Your task to perform on an android device: Go to Yahoo.com Image 0: 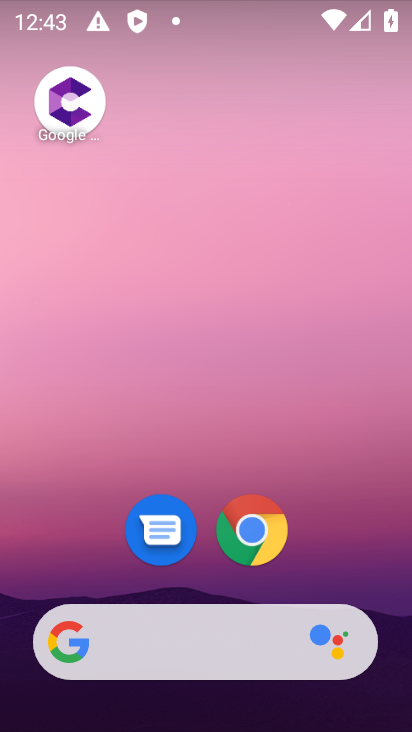
Step 0: click (255, 528)
Your task to perform on an android device: Go to Yahoo.com Image 1: 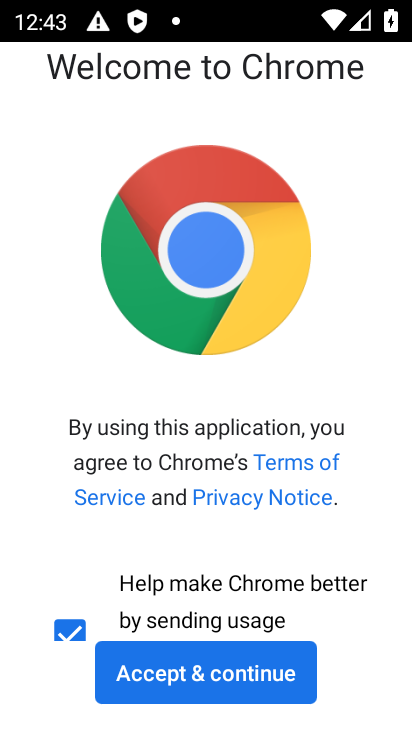
Step 1: click (233, 678)
Your task to perform on an android device: Go to Yahoo.com Image 2: 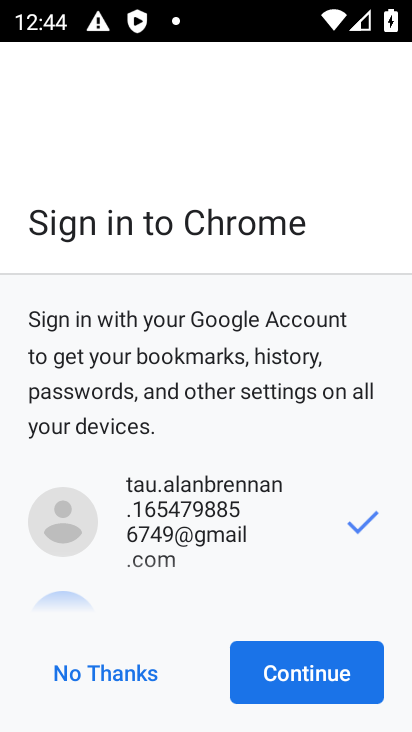
Step 2: click (300, 684)
Your task to perform on an android device: Go to Yahoo.com Image 3: 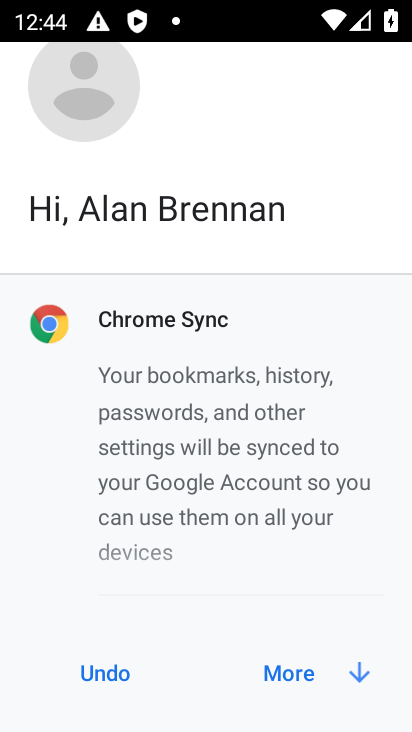
Step 3: click (298, 668)
Your task to perform on an android device: Go to Yahoo.com Image 4: 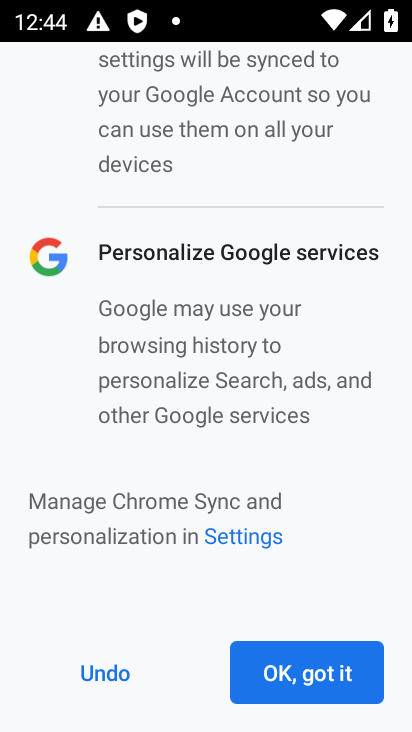
Step 4: click (298, 668)
Your task to perform on an android device: Go to Yahoo.com Image 5: 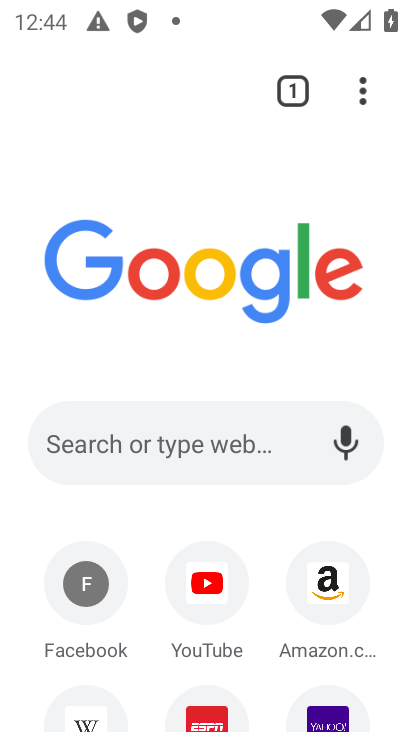
Step 5: click (313, 703)
Your task to perform on an android device: Go to Yahoo.com Image 6: 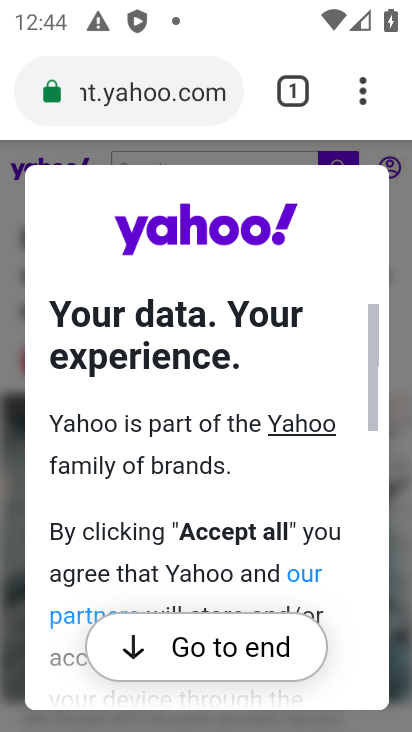
Step 6: click (207, 641)
Your task to perform on an android device: Go to Yahoo.com Image 7: 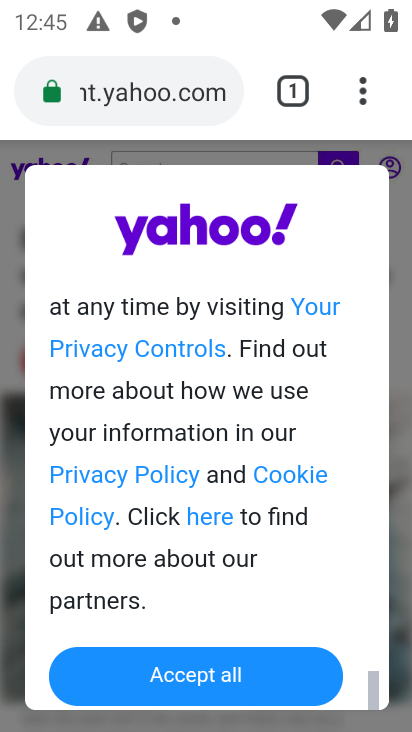
Step 7: click (225, 676)
Your task to perform on an android device: Go to Yahoo.com Image 8: 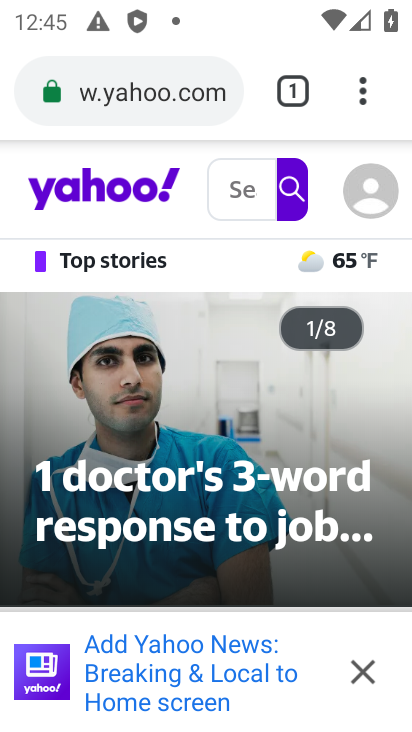
Step 8: task complete